Your task to perform on an android device: all mails in gmail Image 0: 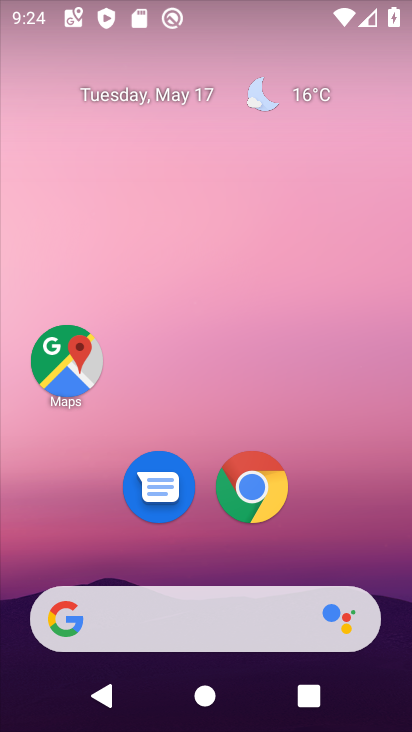
Step 0: drag from (199, 530) to (229, 40)
Your task to perform on an android device: all mails in gmail Image 1: 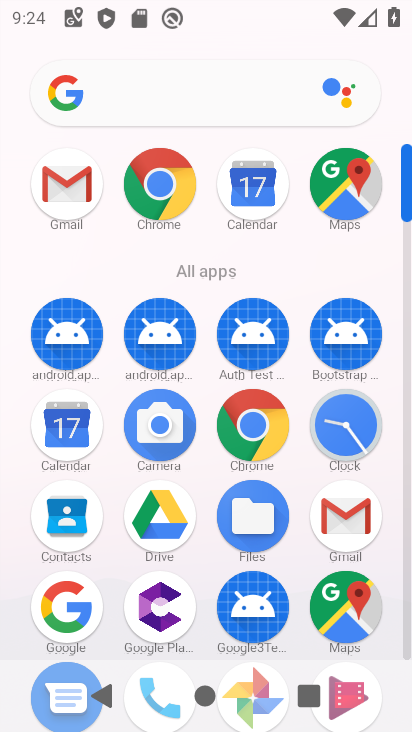
Step 1: click (345, 516)
Your task to perform on an android device: all mails in gmail Image 2: 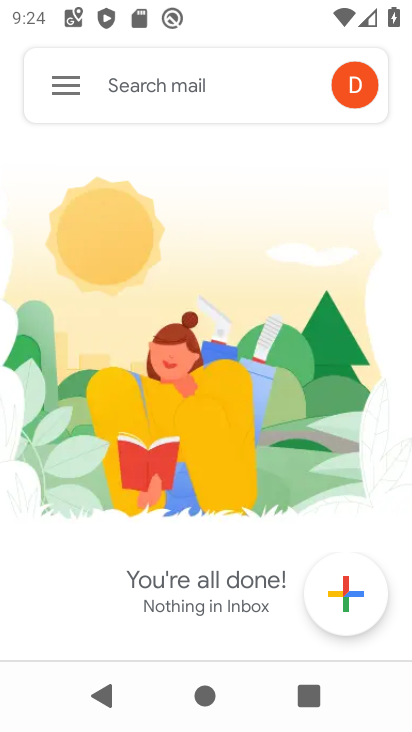
Step 2: click (71, 89)
Your task to perform on an android device: all mails in gmail Image 3: 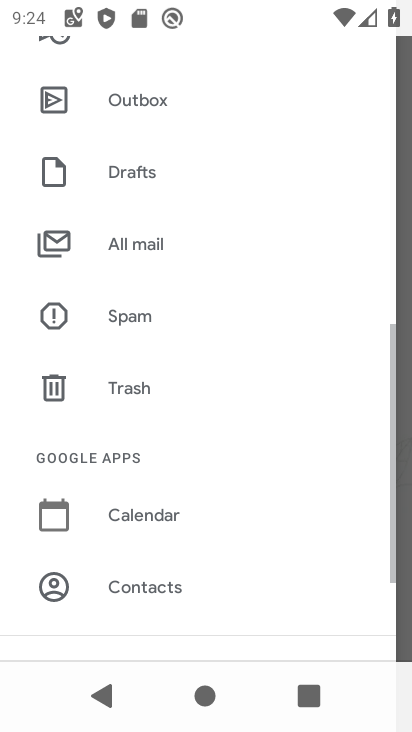
Step 3: click (150, 250)
Your task to perform on an android device: all mails in gmail Image 4: 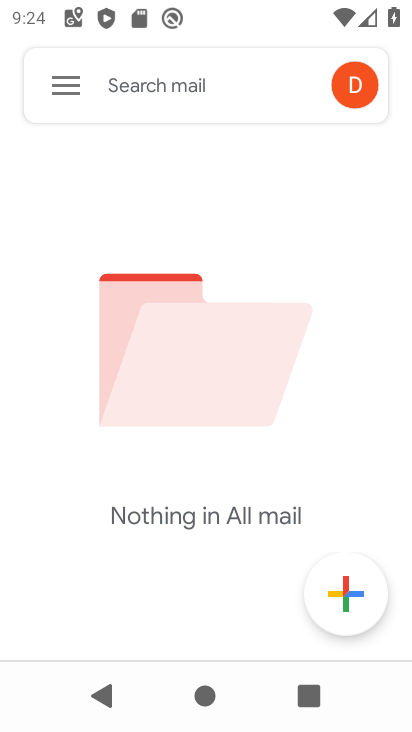
Step 4: task complete